Your task to perform on an android device: Turn off the flashlight Image 0: 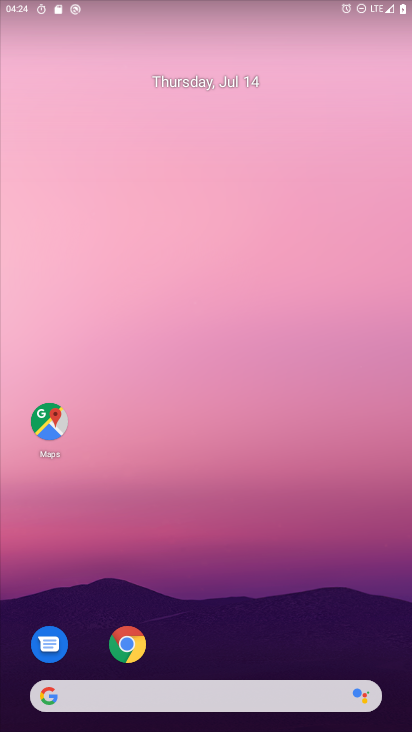
Step 0: click (212, 170)
Your task to perform on an android device: Turn off the flashlight Image 1: 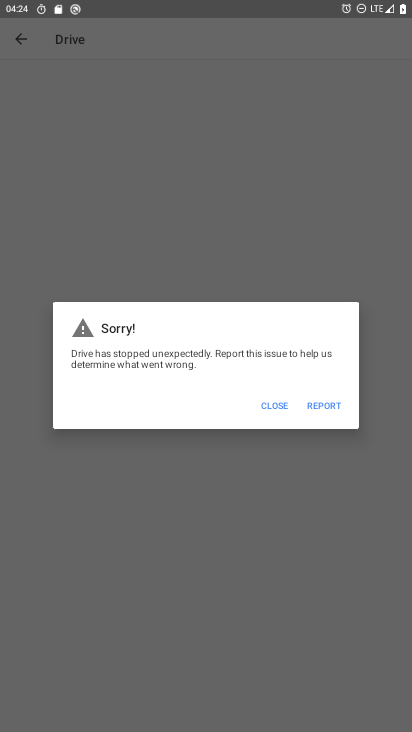
Step 1: press home button
Your task to perform on an android device: Turn off the flashlight Image 2: 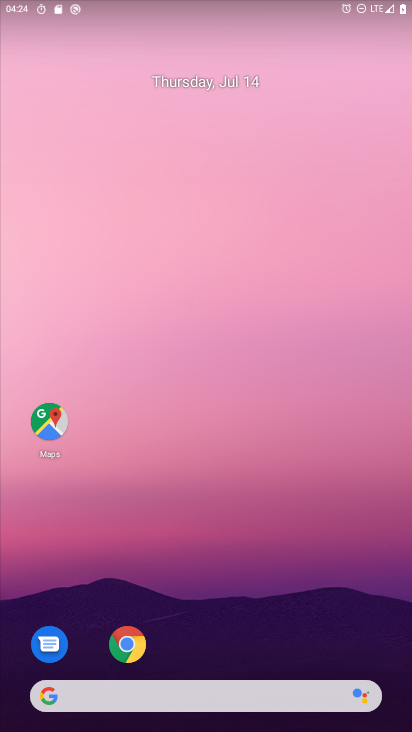
Step 2: drag from (256, 650) to (246, 155)
Your task to perform on an android device: Turn off the flashlight Image 3: 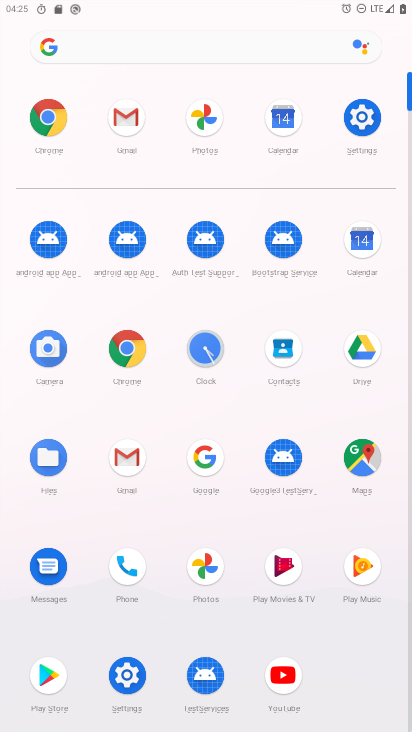
Step 3: click (364, 111)
Your task to perform on an android device: Turn off the flashlight Image 4: 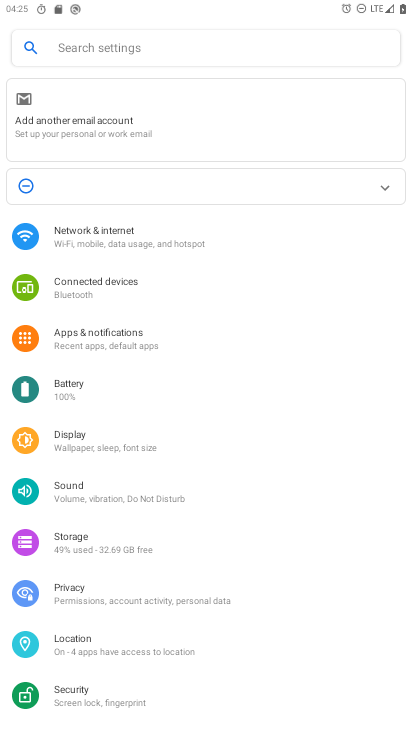
Step 4: click (106, 439)
Your task to perform on an android device: Turn off the flashlight Image 5: 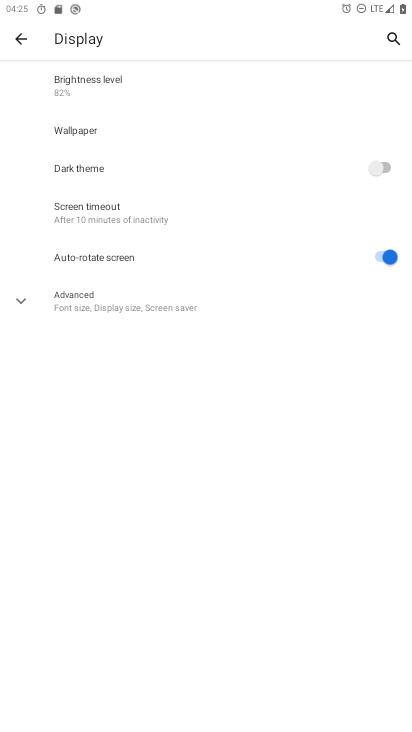
Step 5: task complete